Your task to perform on an android device: turn off data saver in the chrome app Image 0: 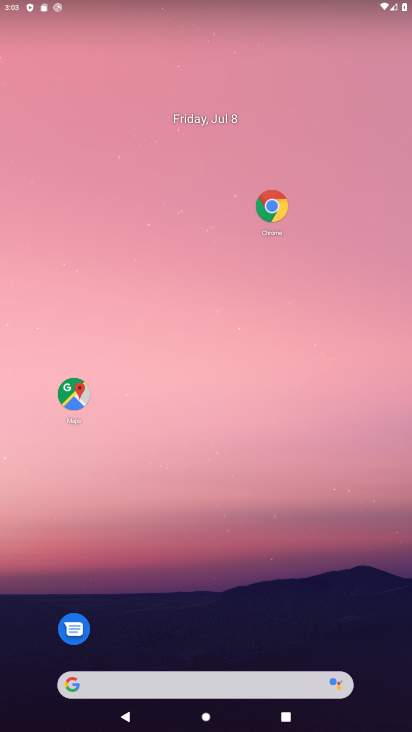
Step 0: drag from (210, 560) to (256, 262)
Your task to perform on an android device: turn off data saver in the chrome app Image 1: 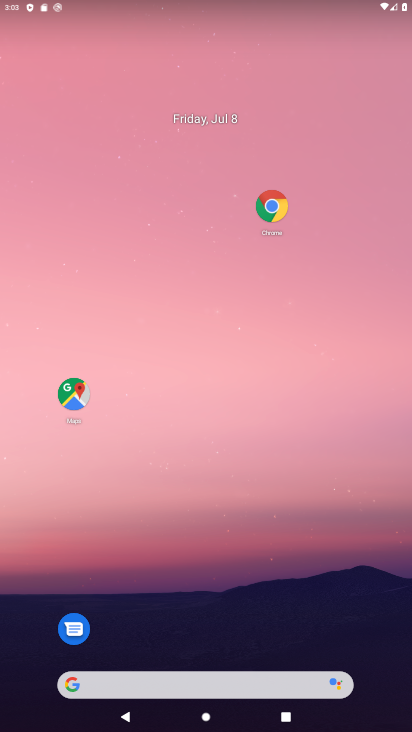
Step 1: drag from (168, 591) to (228, 51)
Your task to perform on an android device: turn off data saver in the chrome app Image 2: 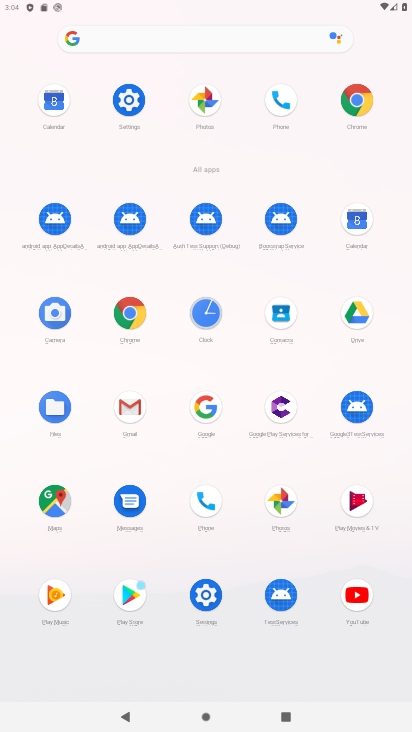
Step 2: click (130, 307)
Your task to perform on an android device: turn off data saver in the chrome app Image 3: 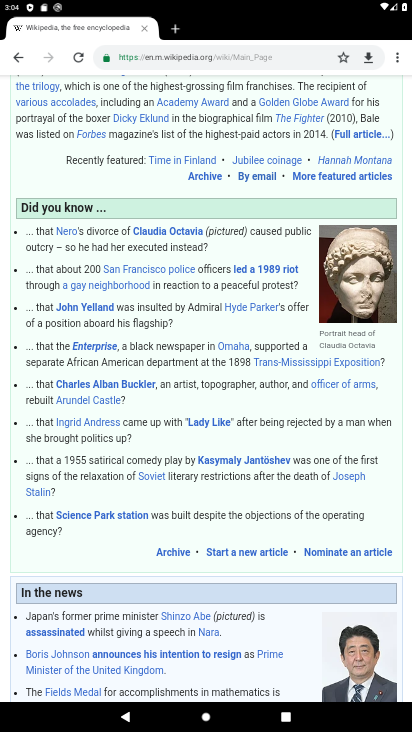
Step 3: drag from (140, 542) to (259, 181)
Your task to perform on an android device: turn off data saver in the chrome app Image 4: 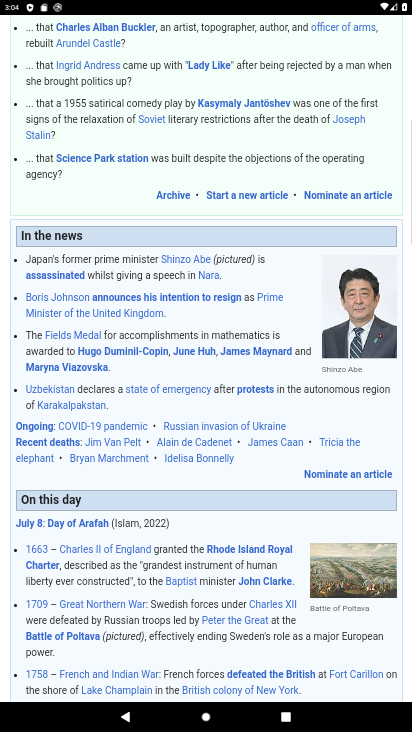
Step 4: drag from (273, 98) to (352, 701)
Your task to perform on an android device: turn off data saver in the chrome app Image 5: 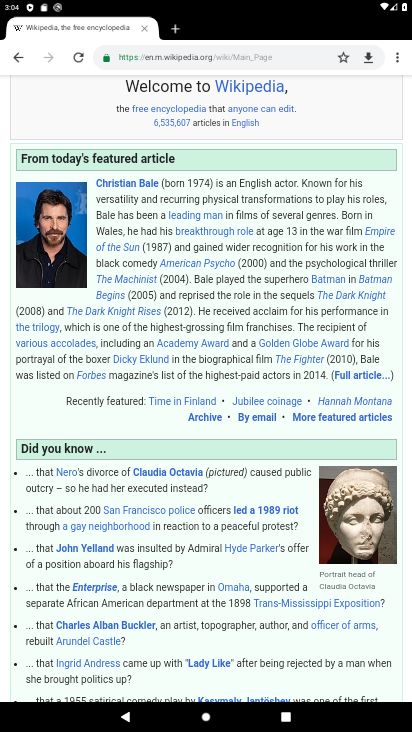
Step 5: click (395, 48)
Your task to perform on an android device: turn off data saver in the chrome app Image 6: 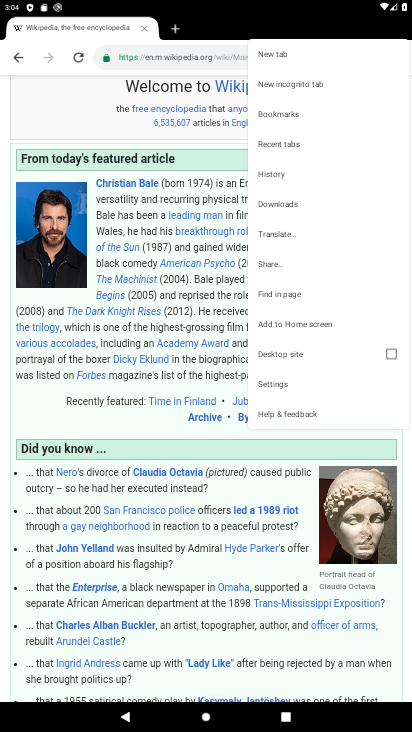
Step 6: click (276, 387)
Your task to perform on an android device: turn off data saver in the chrome app Image 7: 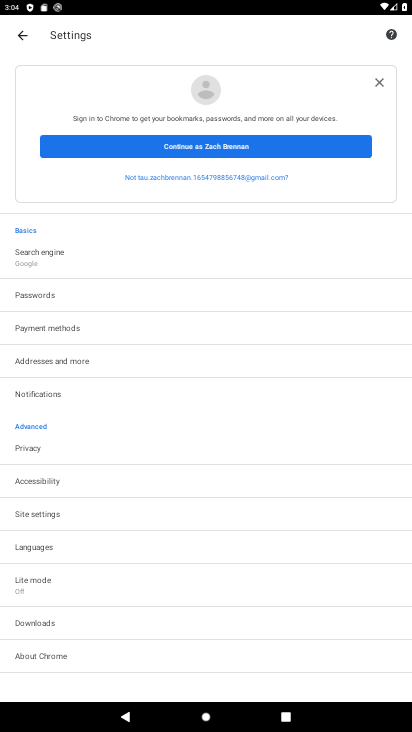
Step 7: click (88, 575)
Your task to perform on an android device: turn off data saver in the chrome app Image 8: 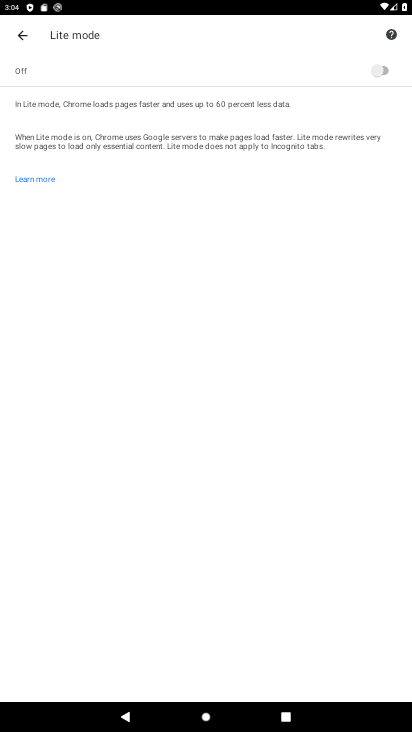
Step 8: task complete